Your task to perform on an android device: toggle javascript in the chrome app Image 0: 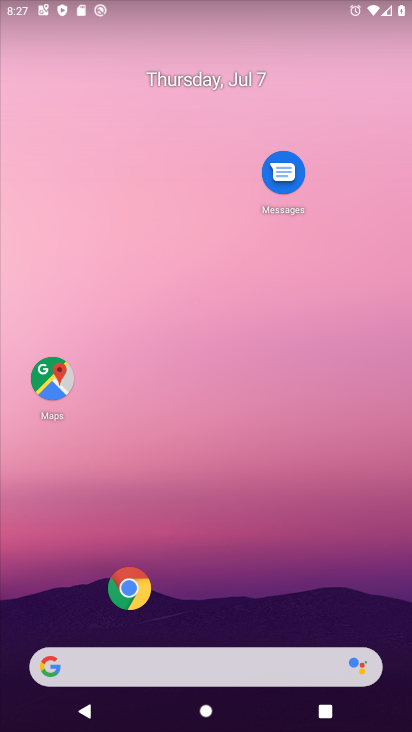
Step 0: click (133, 593)
Your task to perform on an android device: toggle javascript in the chrome app Image 1: 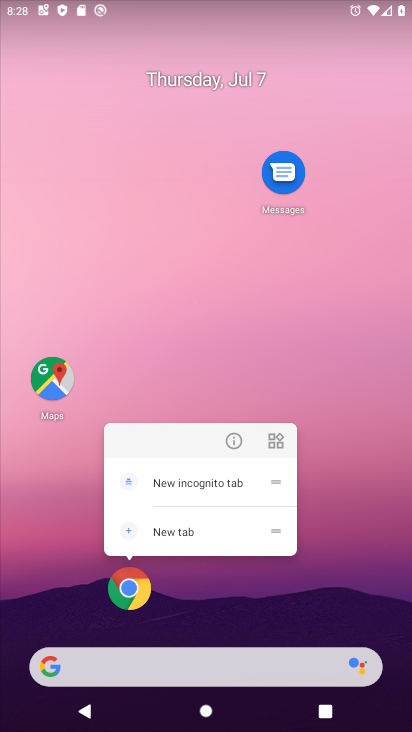
Step 1: click (133, 595)
Your task to perform on an android device: toggle javascript in the chrome app Image 2: 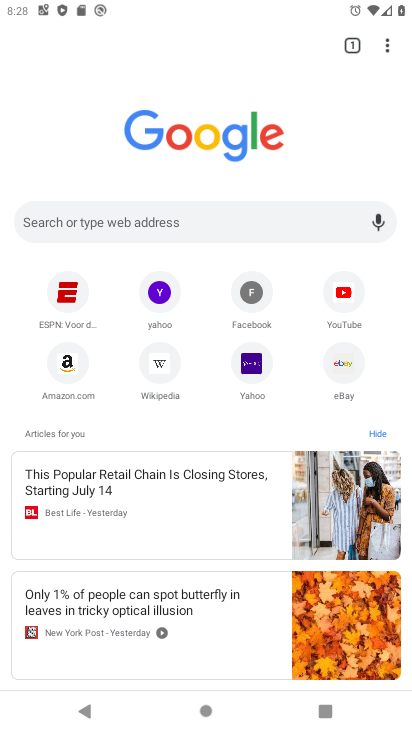
Step 2: click (383, 46)
Your task to perform on an android device: toggle javascript in the chrome app Image 3: 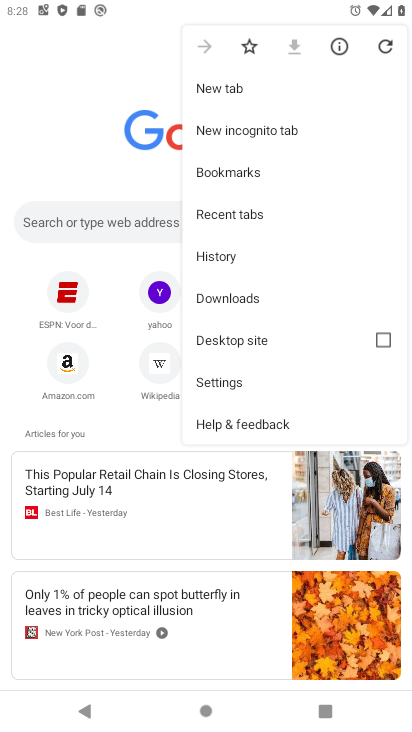
Step 3: click (227, 378)
Your task to perform on an android device: toggle javascript in the chrome app Image 4: 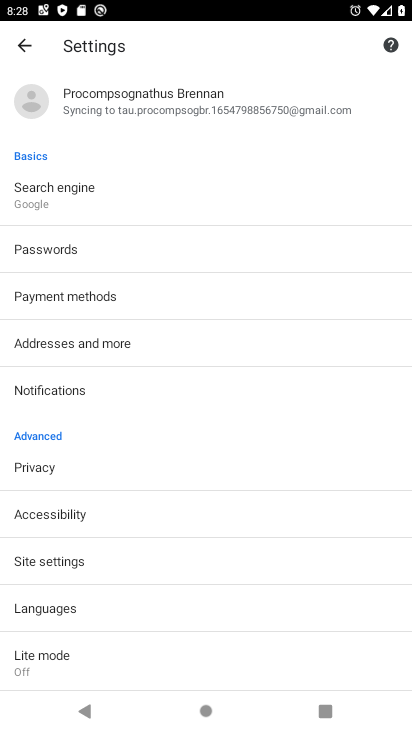
Step 4: click (58, 565)
Your task to perform on an android device: toggle javascript in the chrome app Image 5: 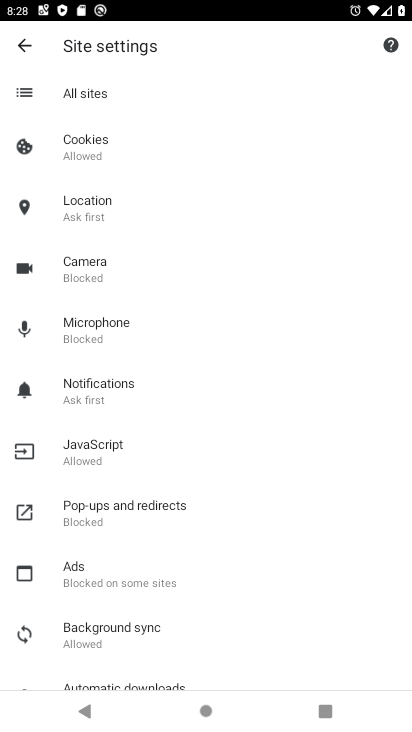
Step 5: click (95, 455)
Your task to perform on an android device: toggle javascript in the chrome app Image 6: 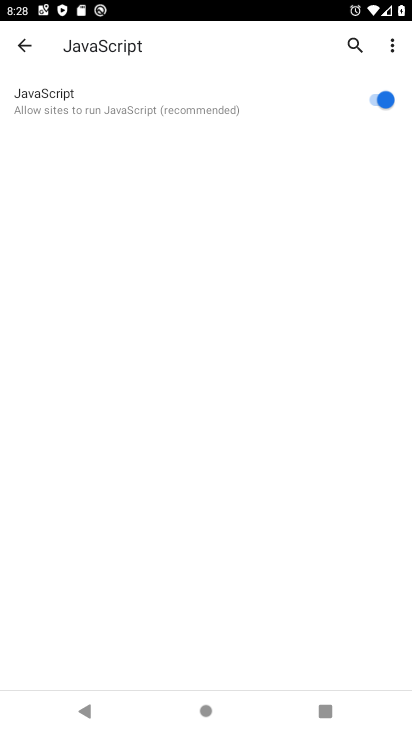
Step 6: task complete